Your task to perform on an android device: read, delete, or share a saved page in the chrome app Image 0: 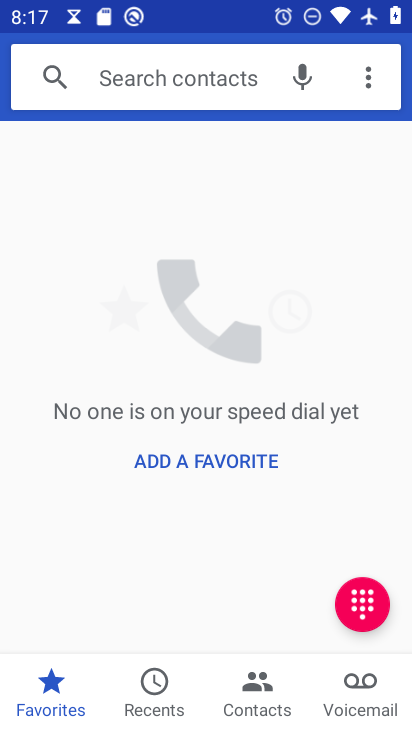
Step 0: press home button
Your task to perform on an android device: read, delete, or share a saved page in the chrome app Image 1: 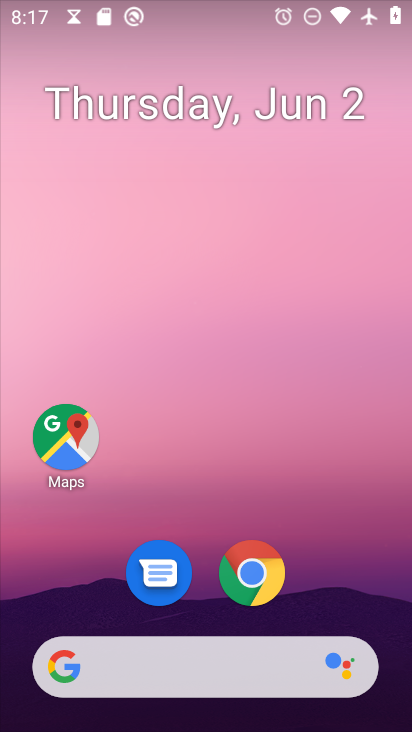
Step 1: click (262, 570)
Your task to perform on an android device: read, delete, or share a saved page in the chrome app Image 2: 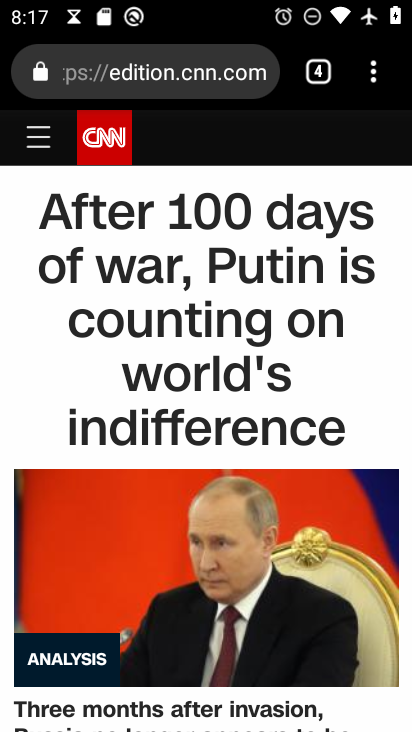
Step 2: drag from (375, 76) to (178, 465)
Your task to perform on an android device: read, delete, or share a saved page in the chrome app Image 3: 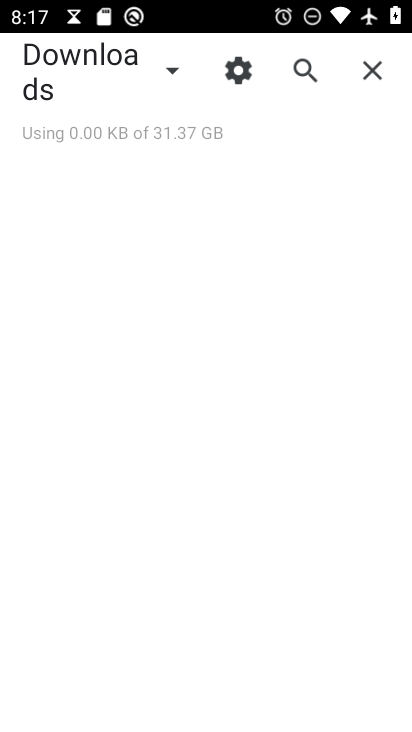
Step 3: click (160, 68)
Your task to perform on an android device: read, delete, or share a saved page in the chrome app Image 4: 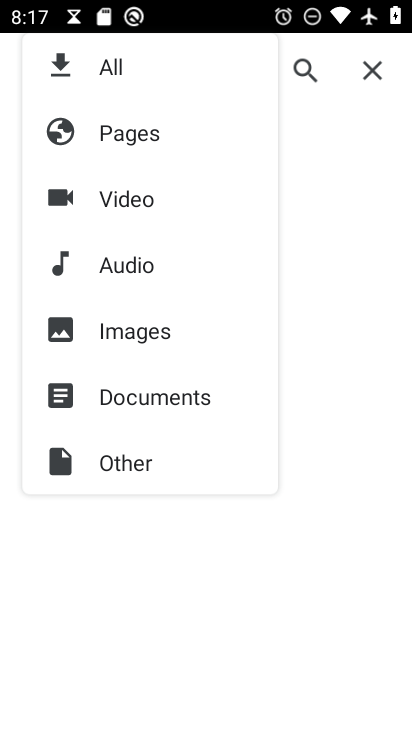
Step 4: click (146, 142)
Your task to perform on an android device: read, delete, or share a saved page in the chrome app Image 5: 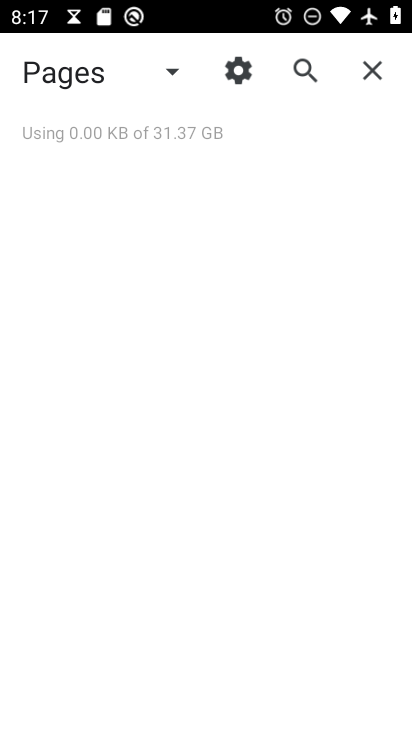
Step 5: task complete